Your task to perform on an android device: Go to internet settings Image 0: 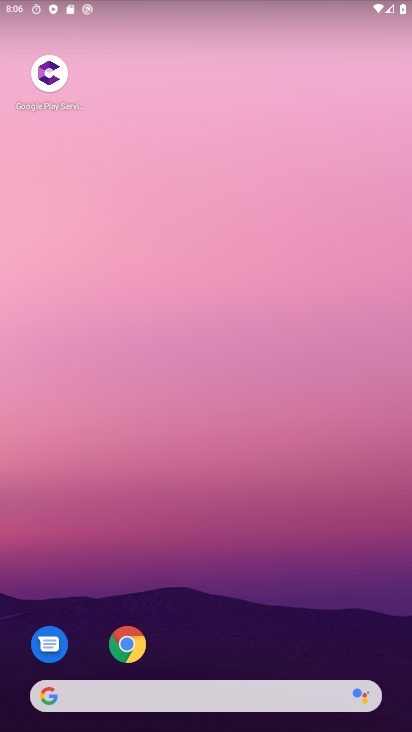
Step 0: drag from (144, 686) to (234, 177)
Your task to perform on an android device: Go to internet settings Image 1: 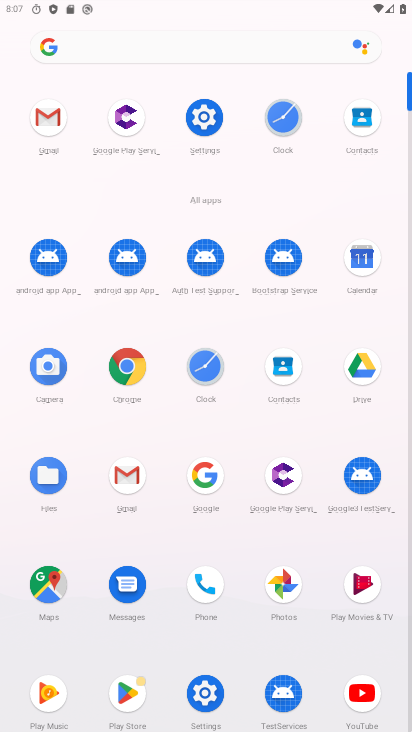
Step 1: click (206, 119)
Your task to perform on an android device: Go to internet settings Image 2: 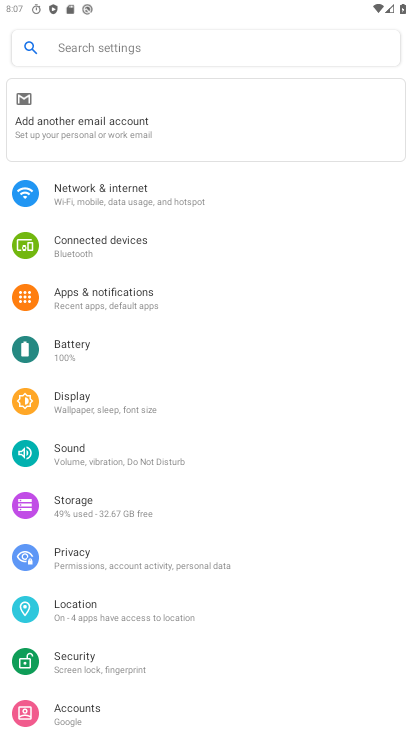
Step 2: click (101, 185)
Your task to perform on an android device: Go to internet settings Image 3: 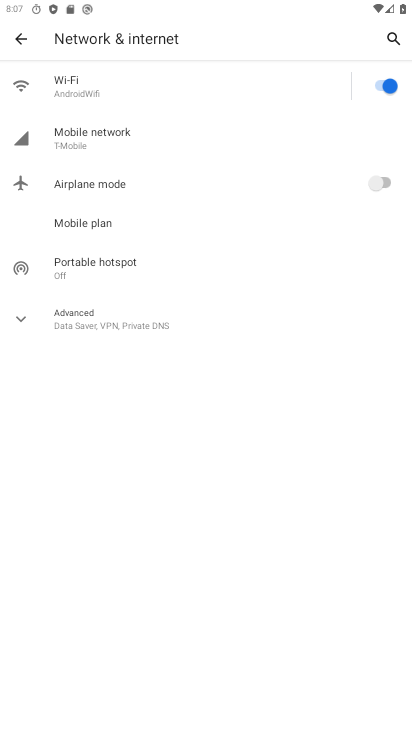
Step 3: task complete